Your task to perform on an android device: Open Yahoo.com Image 0: 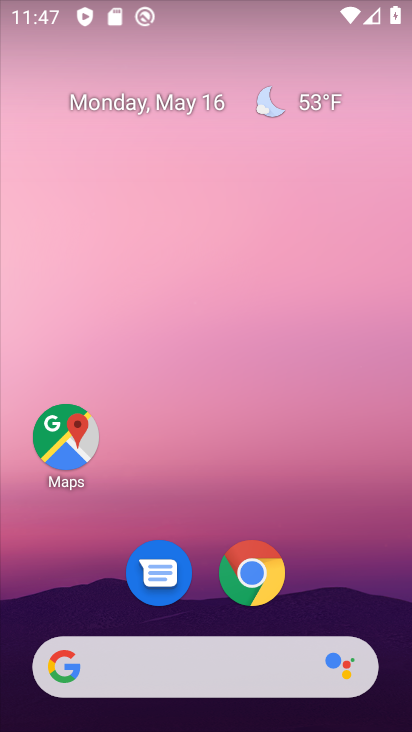
Step 0: click (249, 590)
Your task to perform on an android device: Open Yahoo.com Image 1: 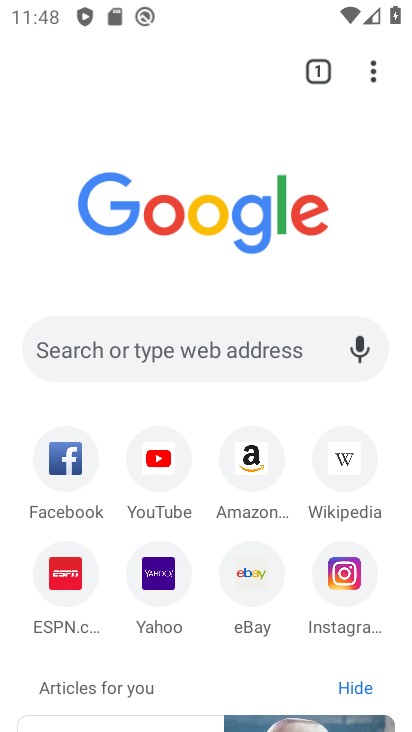
Step 1: click (135, 575)
Your task to perform on an android device: Open Yahoo.com Image 2: 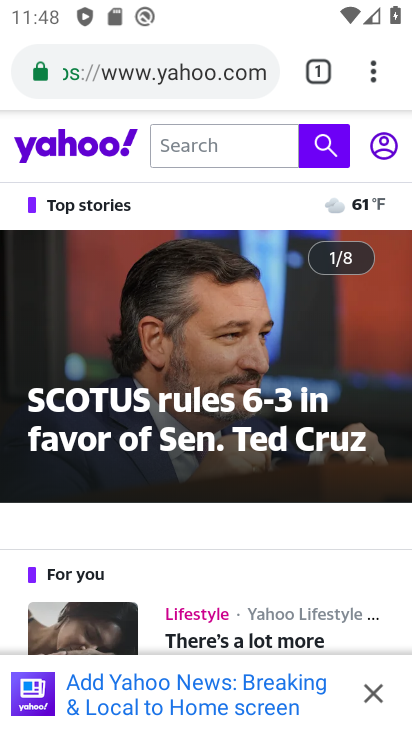
Step 2: task complete